Your task to perform on an android device: Open CNN.com Image 0: 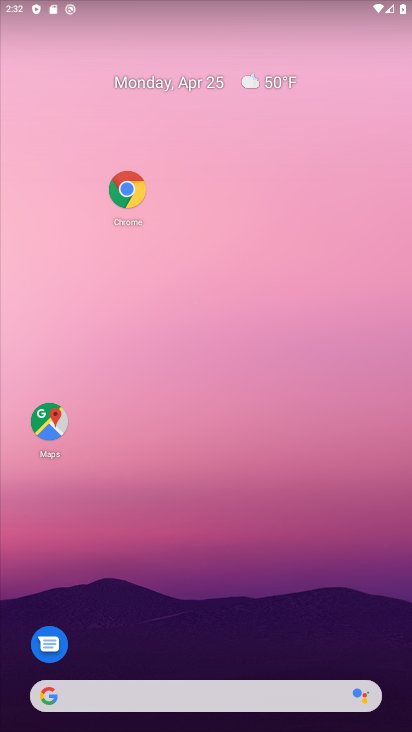
Step 0: click (131, 187)
Your task to perform on an android device: Open CNN.com Image 1: 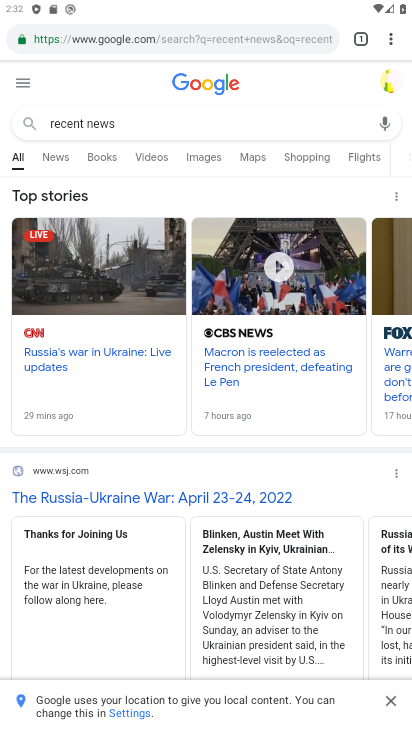
Step 1: click (153, 121)
Your task to perform on an android device: Open CNN.com Image 2: 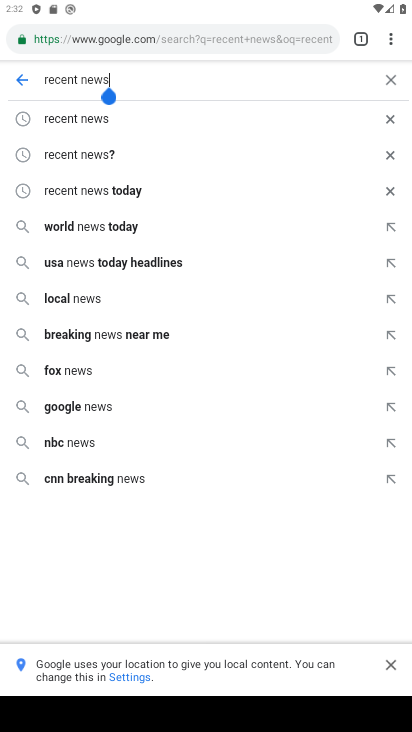
Step 2: click (388, 81)
Your task to perform on an android device: Open CNN.com Image 3: 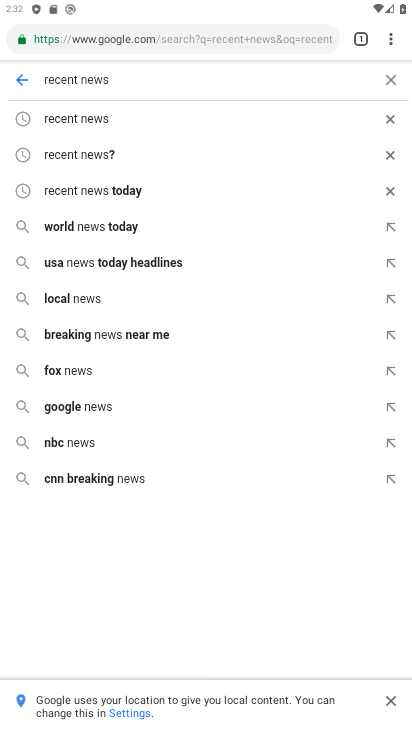
Step 3: click (388, 77)
Your task to perform on an android device: Open CNN.com Image 4: 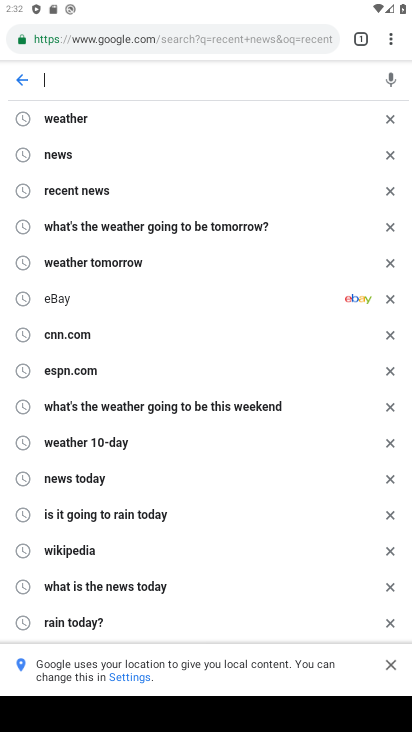
Step 4: type "CNN.com"
Your task to perform on an android device: Open CNN.com Image 5: 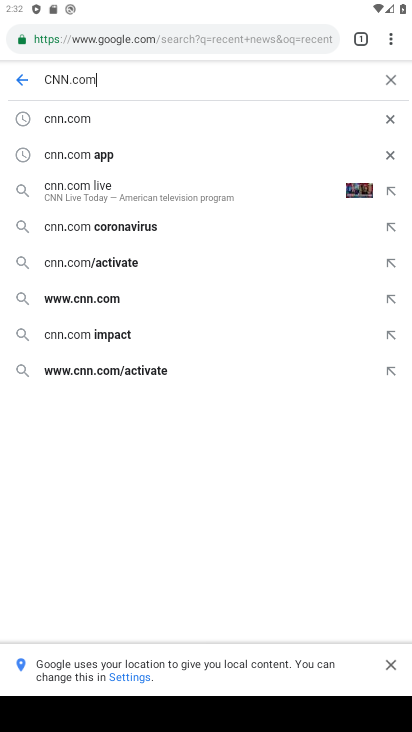
Step 5: click (129, 117)
Your task to perform on an android device: Open CNN.com Image 6: 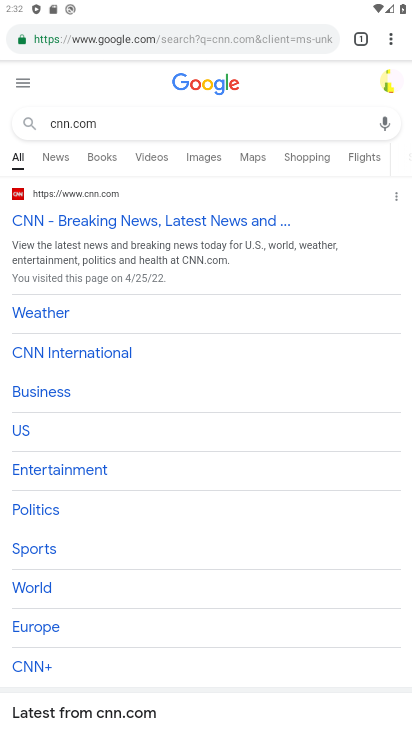
Step 6: task complete